Your task to perform on an android device: What's on my calendar today? Image 0: 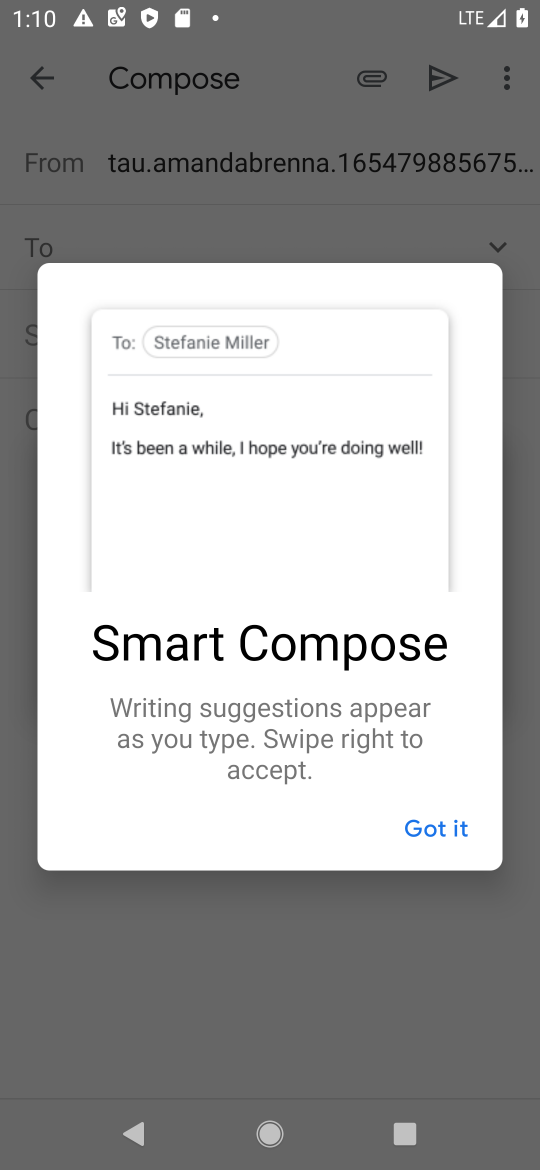
Step 0: press home button
Your task to perform on an android device: What's on my calendar today? Image 1: 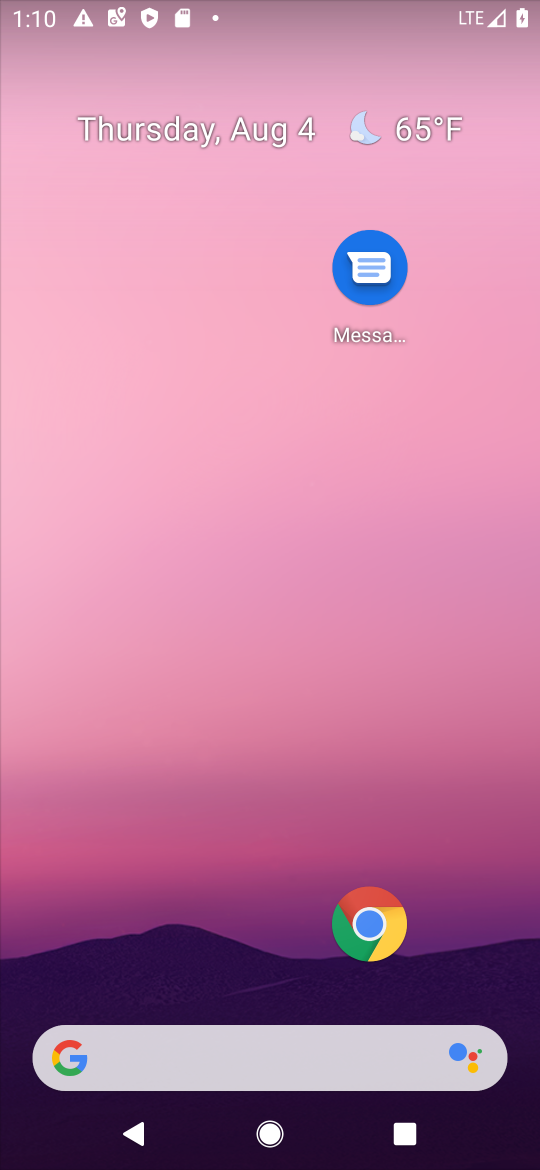
Step 1: click (103, 1104)
Your task to perform on an android device: What's on my calendar today? Image 2: 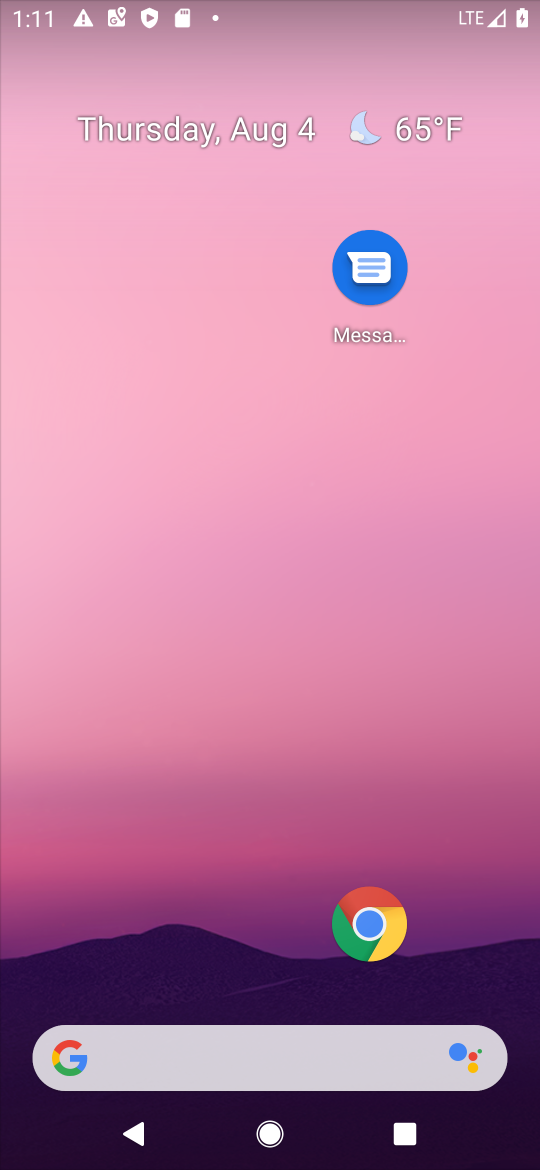
Step 2: drag from (66, 1097) to (329, 182)
Your task to perform on an android device: What's on my calendar today? Image 3: 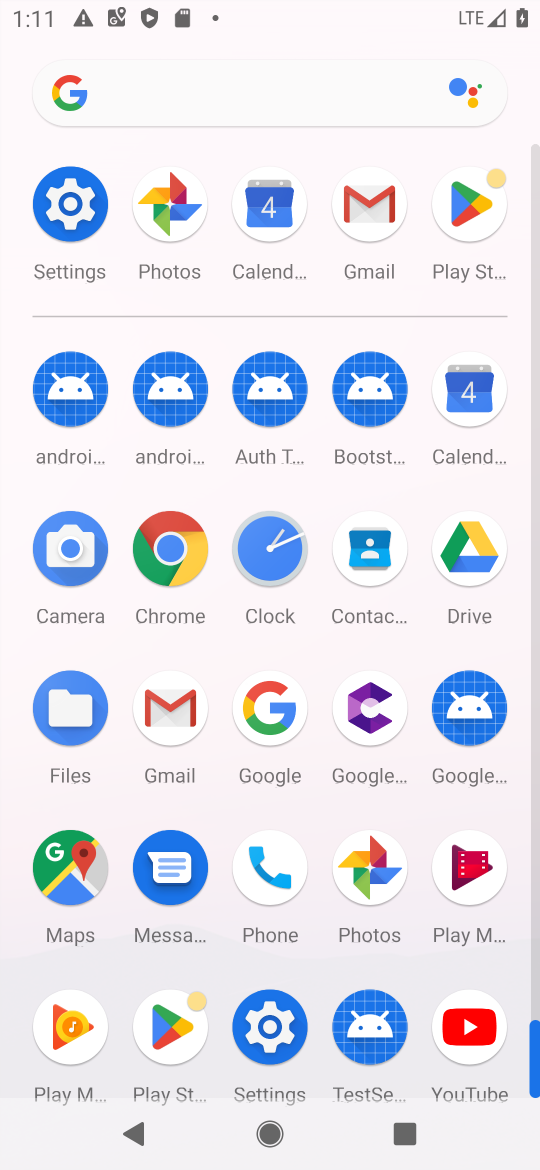
Step 3: click (456, 405)
Your task to perform on an android device: What's on my calendar today? Image 4: 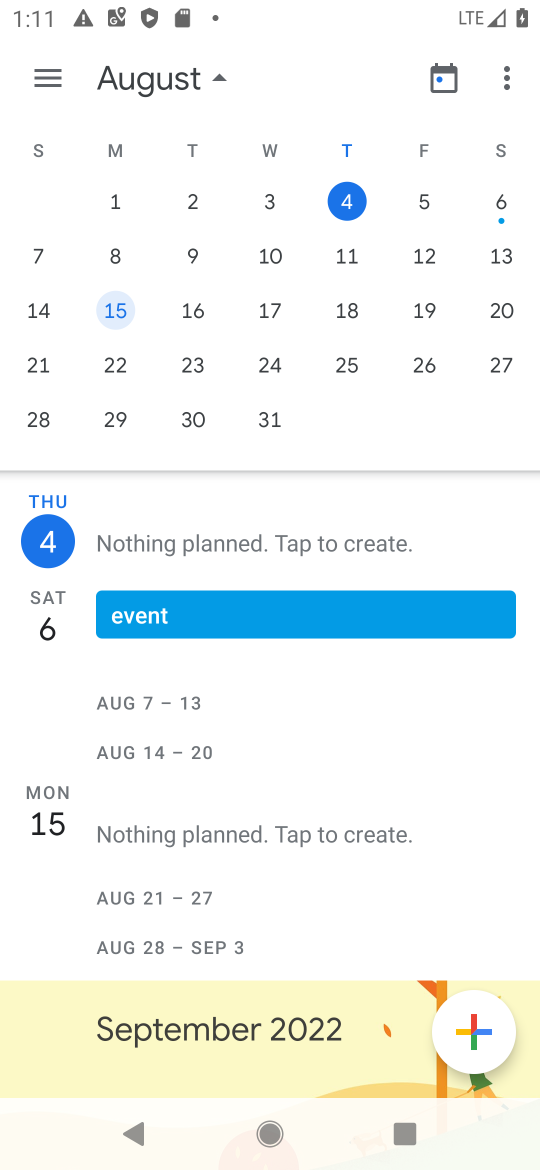
Step 4: task complete